Your task to perform on an android device: open device folders in google photos Image 0: 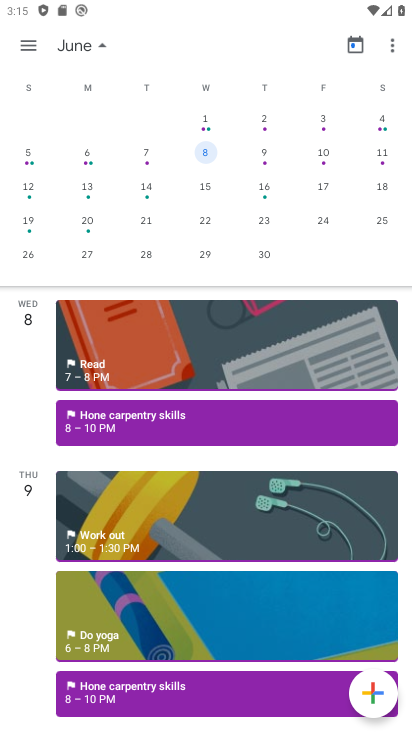
Step 0: press home button
Your task to perform on an android device: open device folders in google photos Image 1: 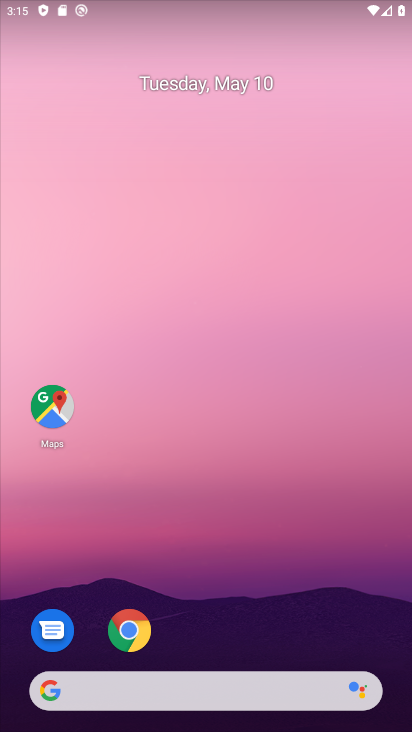
Step 1: drag from (182, 639) to (221, 142)
Your task to perform on an android device: open device folders in google photos Image 2: 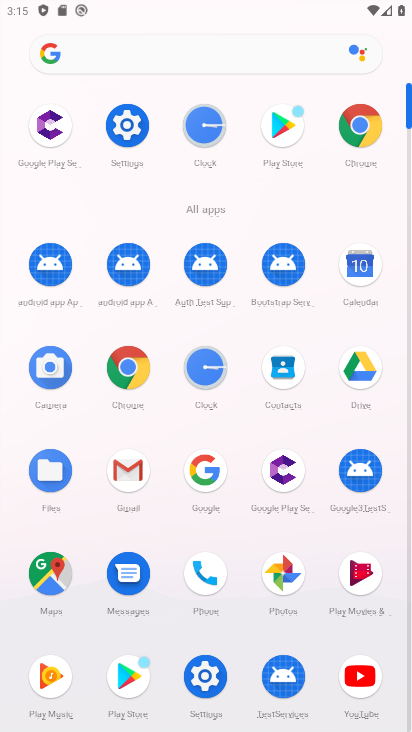
Step 2: click (286, 572)
Your task to perform on an android device: open device folders in google photos Image 3: 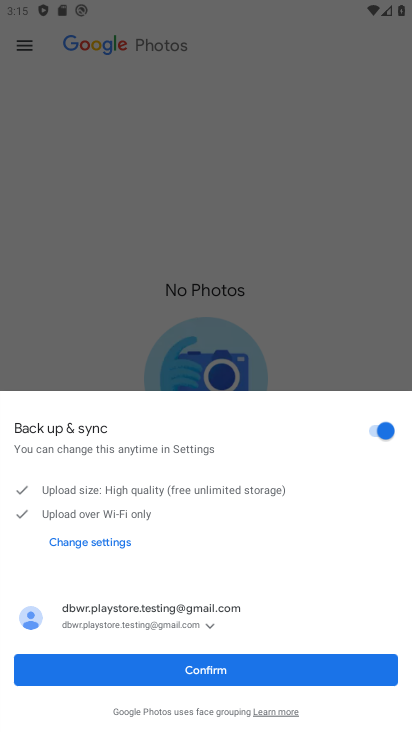
Step 3: click (225, 677)
Your task to perform on an android device: open device folders in google photos Image 4: 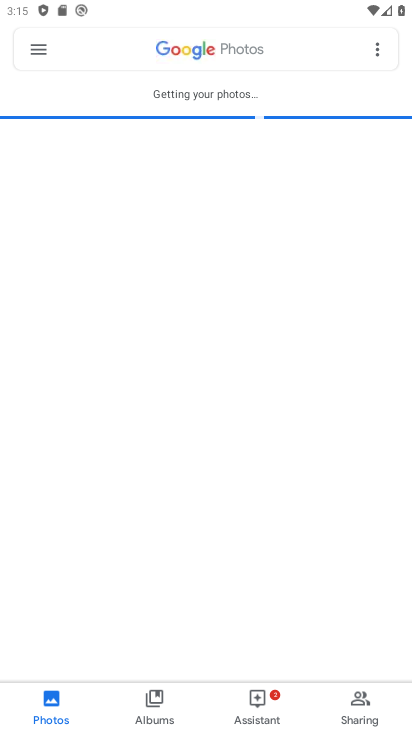
Step 4: click (25, 47)
Your task to perform on an android device: open device folders in google photos Image 5: 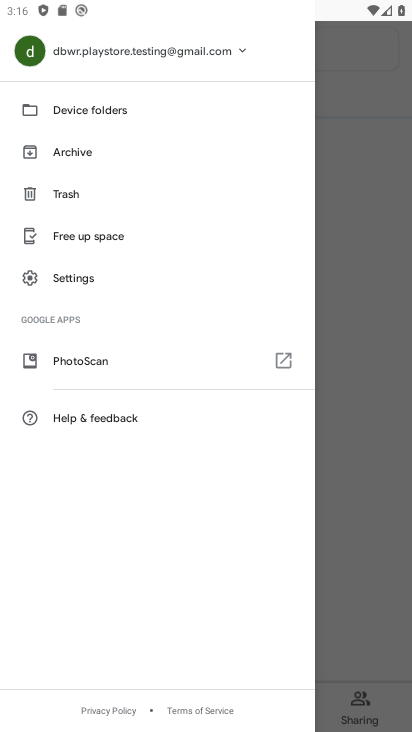
Step 5: click (153, 107)
Your task to perform on an android device: open device folders in google photos Image 6: 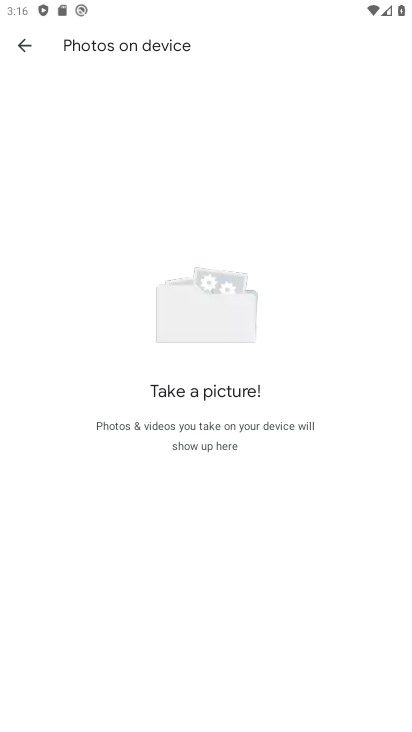
Step 6: task complete